Your task to perform on an android device: Search for pizza restaurants on Maps Image 0: 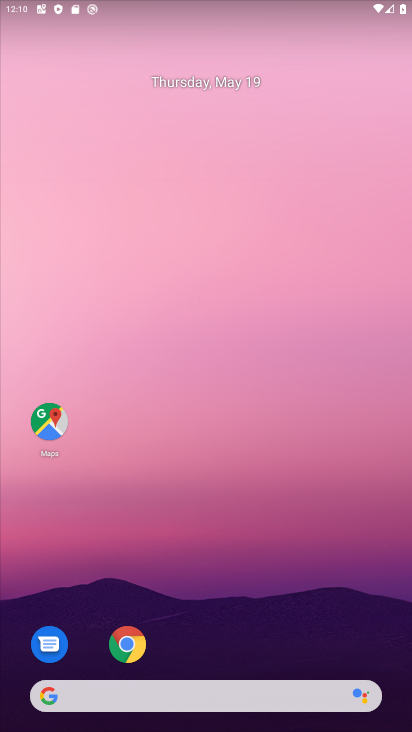
Step 0: drag from (327, 435) to (294, 211)
Your task to perform on an android device: Search for pizza restaurants on Maps Image 1: 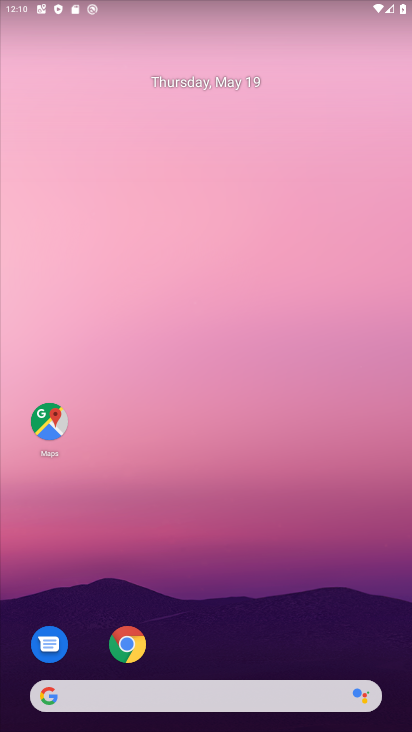
Step 1: drag from (373, 642) to (340, 196)
Your task to perform on an android device: Search for pizza restaurants on Maps Image 2: 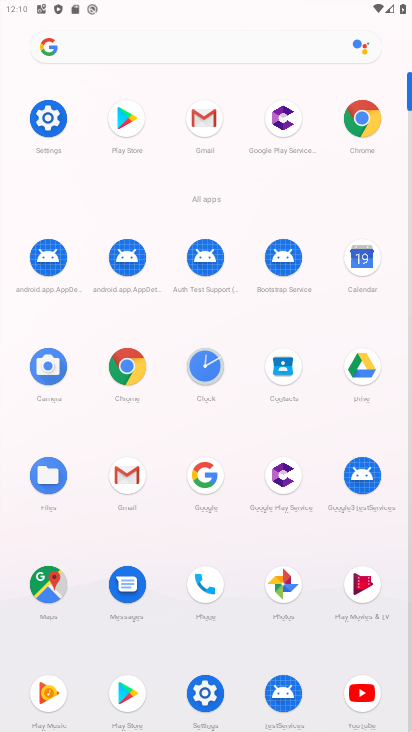
Step 2: click (55, 592)
Your task to perform on an android device: Search for pizza restaurants on Maps Image 3: 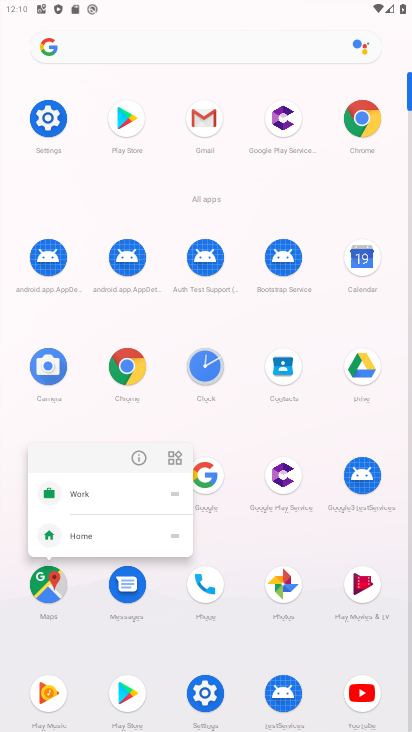
Step 3: click (49, 591)
Your task to perform on an android device: Search for pizza restaurants on Maps Image 4: 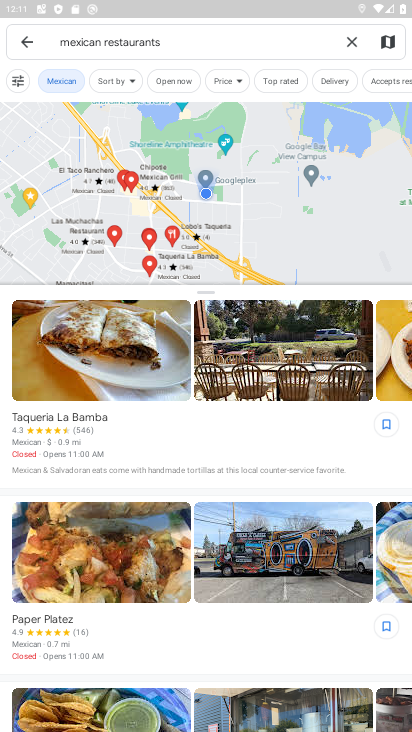
Step 4: click (352, 41)
Your task to perform on an android device: Search for pizza restaurants on Maps Image 5: 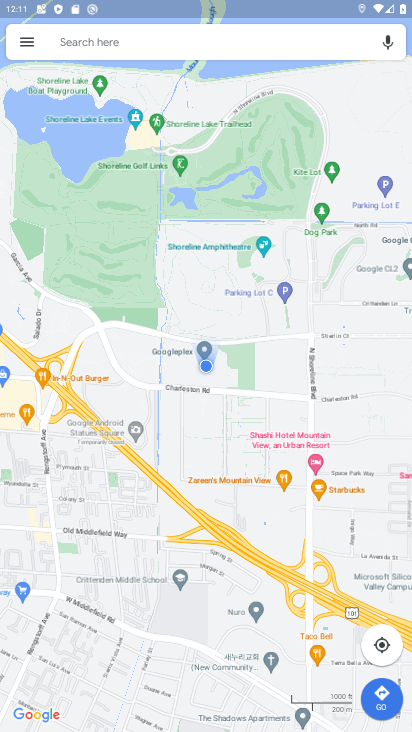
Step 5: click (190, 52)
Your task to perform on an android device: Search for pizza restaurants on Maps Image 6: 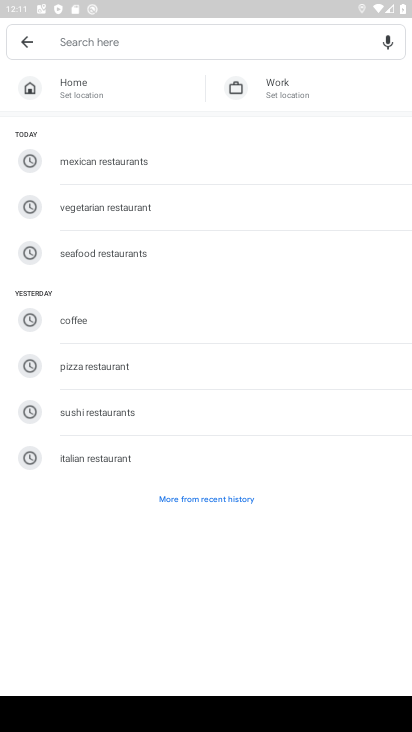
Step 6: click (146, 369)
Your task to perform on an android device: Search for pizza restaurants on Maps Image 7: 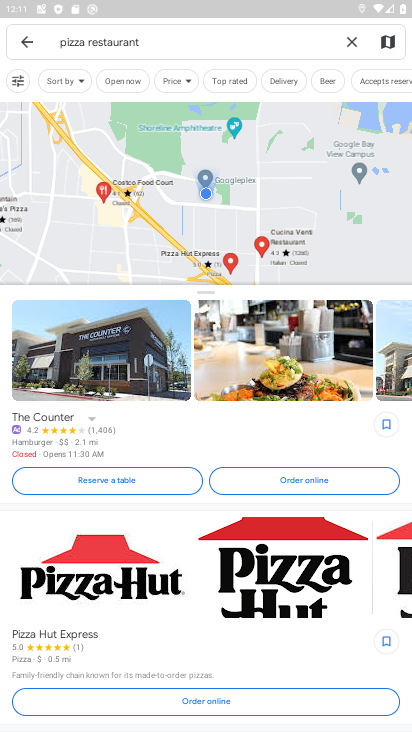
Step 7: task complete